Your task to perform on an android device: check out phone information Image 0: 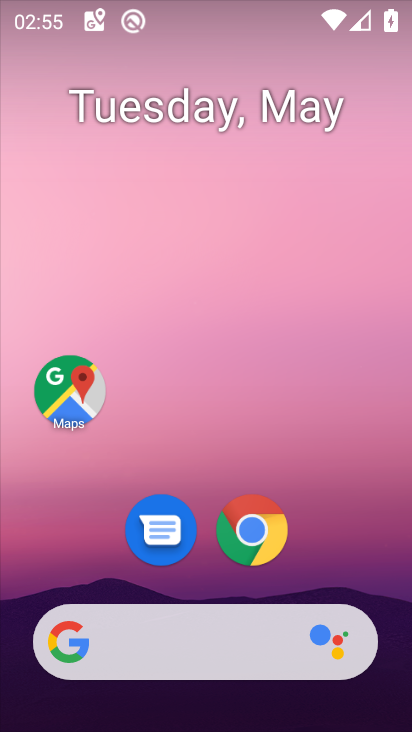
Step 0: drag from (61, 603) to (350, 127)
Your task to perform on an android device: check out phone information Image 1: 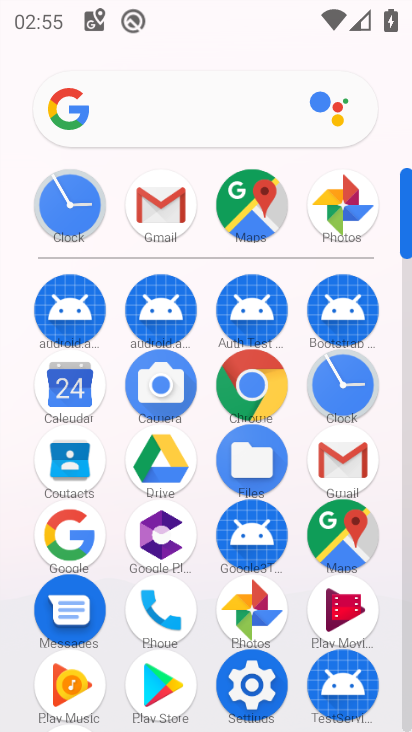
Step 1: click (163, 608)
Your task to perform on an android device: check out phone information Image 2: 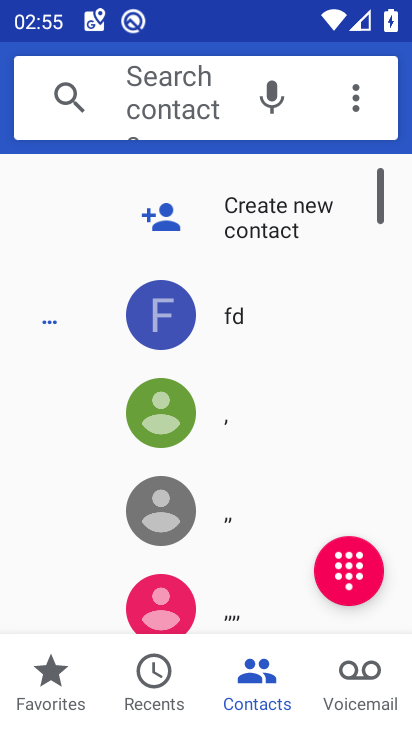
Step 2: click (32, 694)
Your task to perform on an android device: check out phone information Image 3: 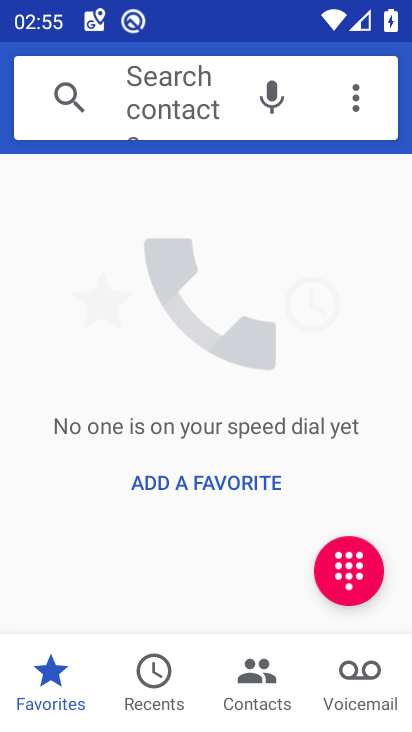
Step 3: click (252, 673)
Your task to perform on an android device: check out phone information Image 4: 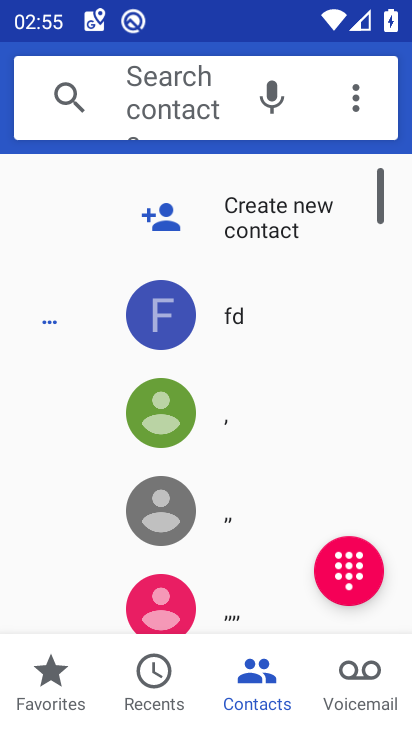
Step 4: task complete